Your task to perform on an android device: open app "LinkedIn" (install if not already installed), go to login, and select forgot password Image 0: 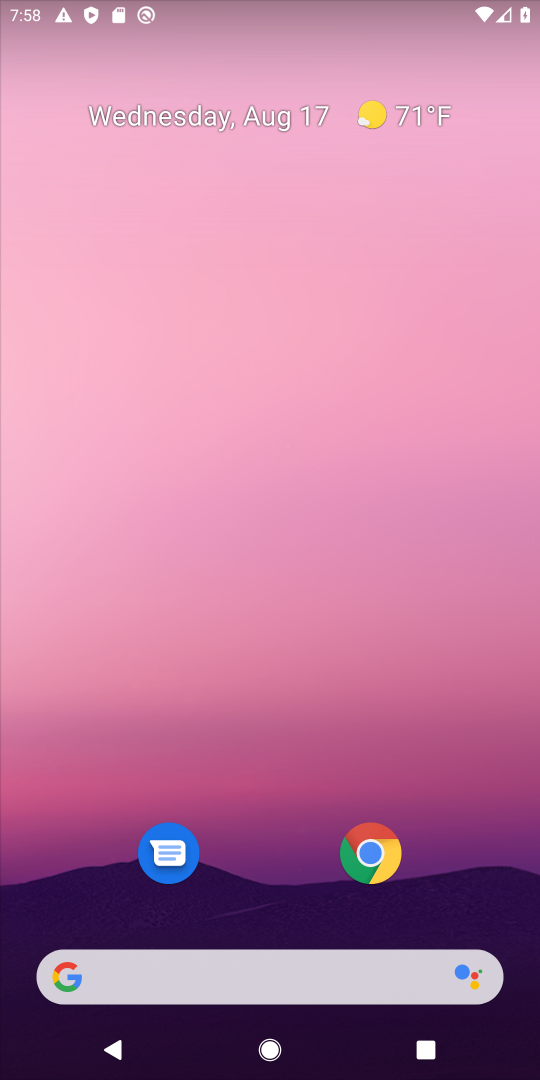
Step 0: drag from (303, 859) to (331, 259)
Your task to perform on an android device: open app "LinkedIn" (install if not already installed), go to login, and select forgot password Image 1: 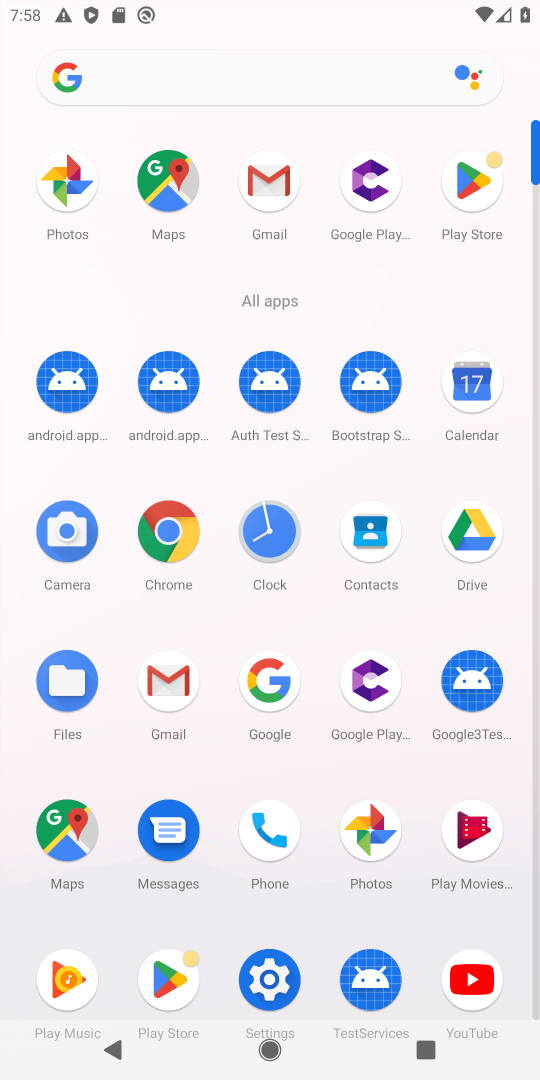
Step 1: click (489, 180)
Your task to perform on an android device: open app "LinkedIn" (install if not already installed), go to login, and select forgot password Image 2: 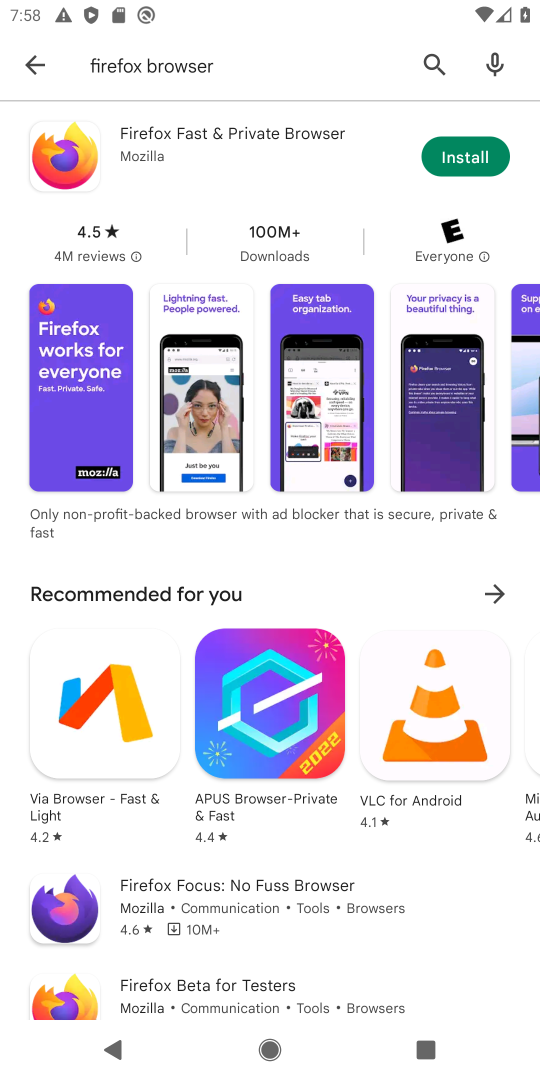
Step 2: click (439, 64)
Your task to perform on an android device: open app "LinkedIn" (install if not already installed), go to login, and select forgot password Image 3: 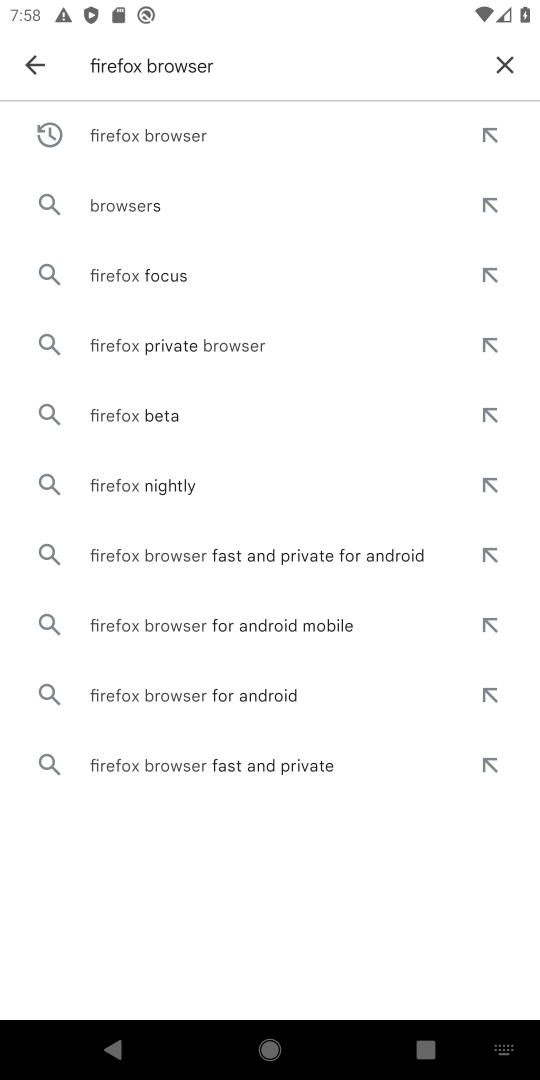
Step 3: click (500, 66)
Your task to perform on an android device: open app "LinkedIn" (install if not already installed), go to login, and select forgot password Image 4: 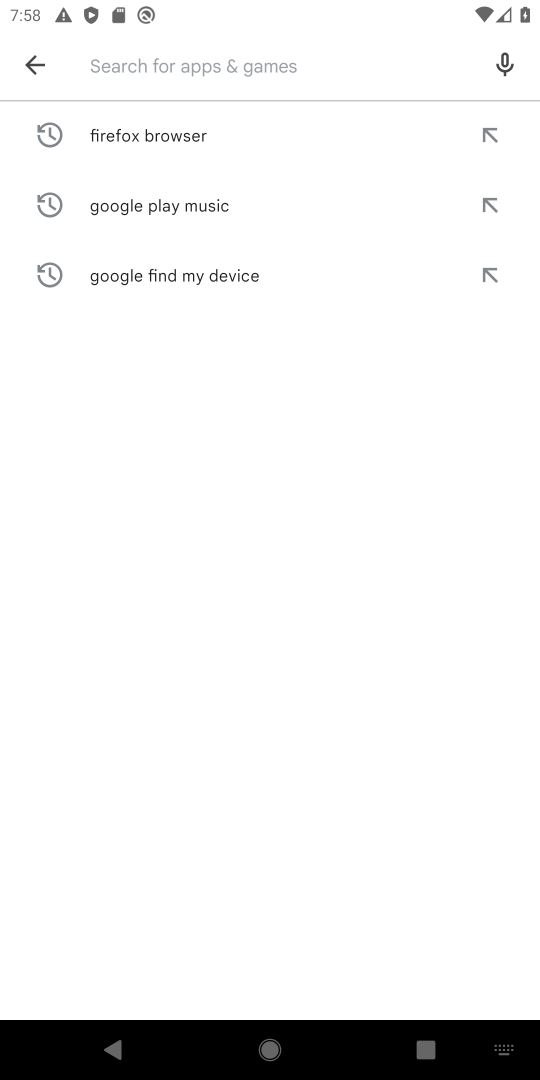
Step 4: type "LinkedIn"
Your task to perform on an android device: open app "LinkedIn" (install if not already installed), go to login, and select forgot password Image 5: 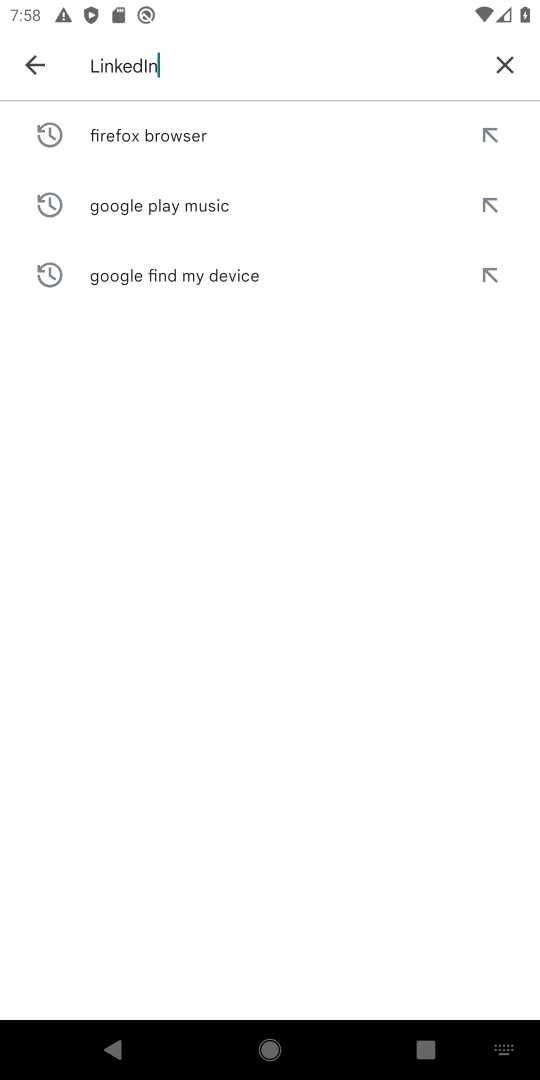
Step 5: type ""
Your task to perform on an android device: open app "LinkedIn" (install if not already installed), go to login, and select forgot password Image 6: 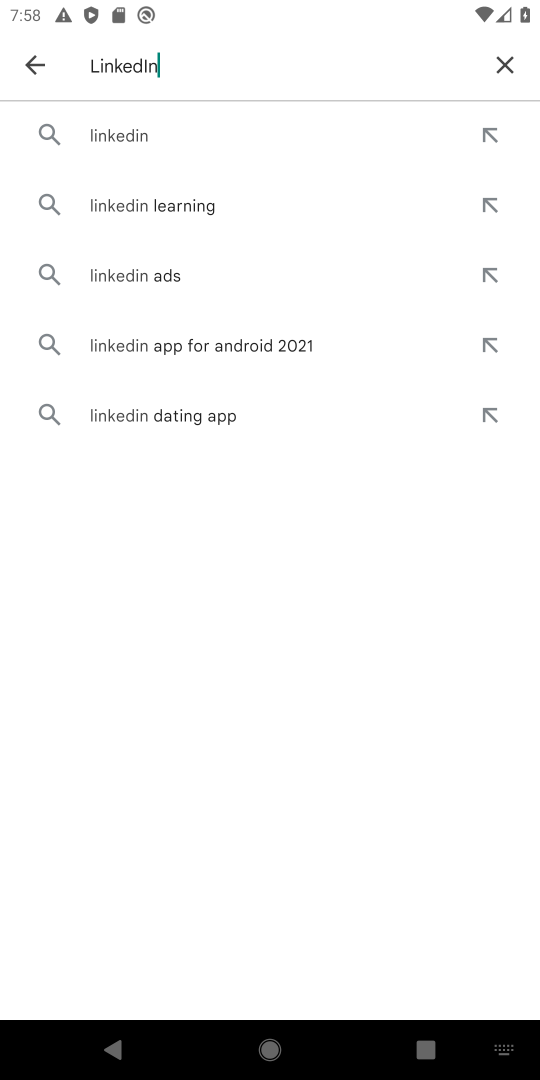
Step 6: click (301, 125)
Your task to perform on an android device: open app "LinkedIn" (install if not already installed), go to login, and select forgot password Image 7: 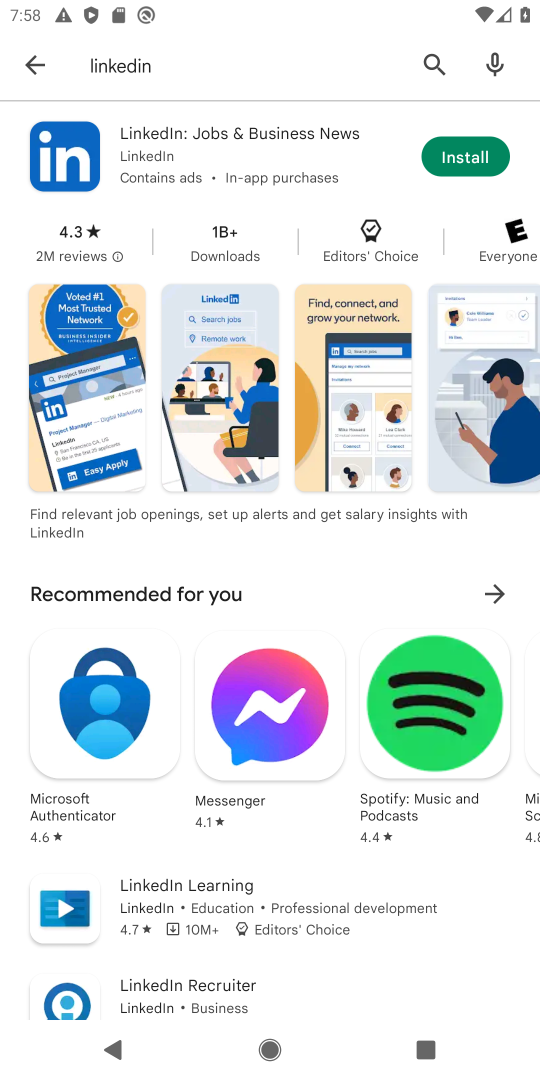
Step 7: click (463, 160)
Your task to perform on an android device: open app "LinkedIn" (install if not already installed), go to login, and select forgot password Image 8: 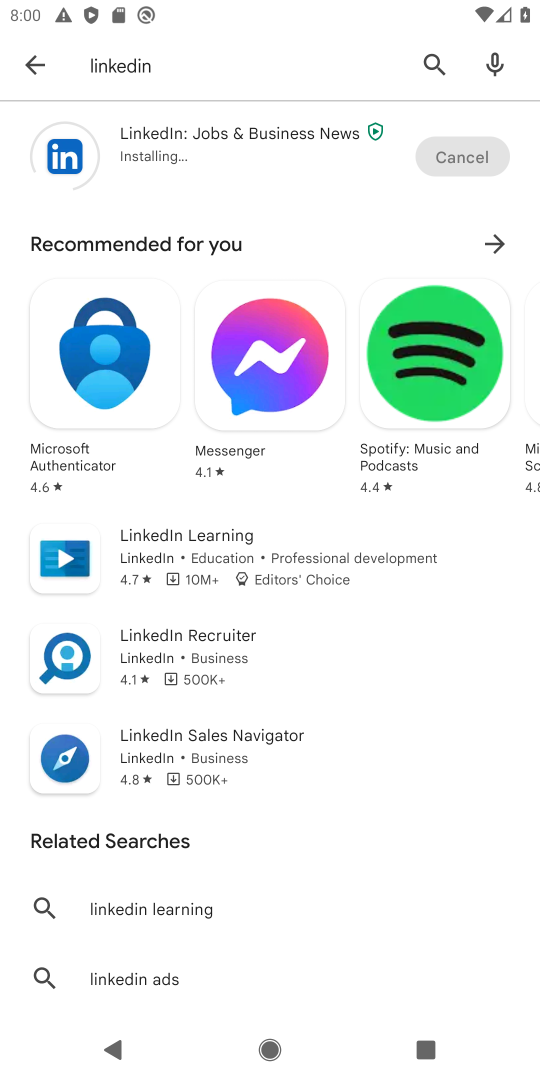
Step 8: click (237, 137)
Your task to perform on an android device: open app "LinkedIn" (install if not already installed), go to login, and select forgot password Image 9: 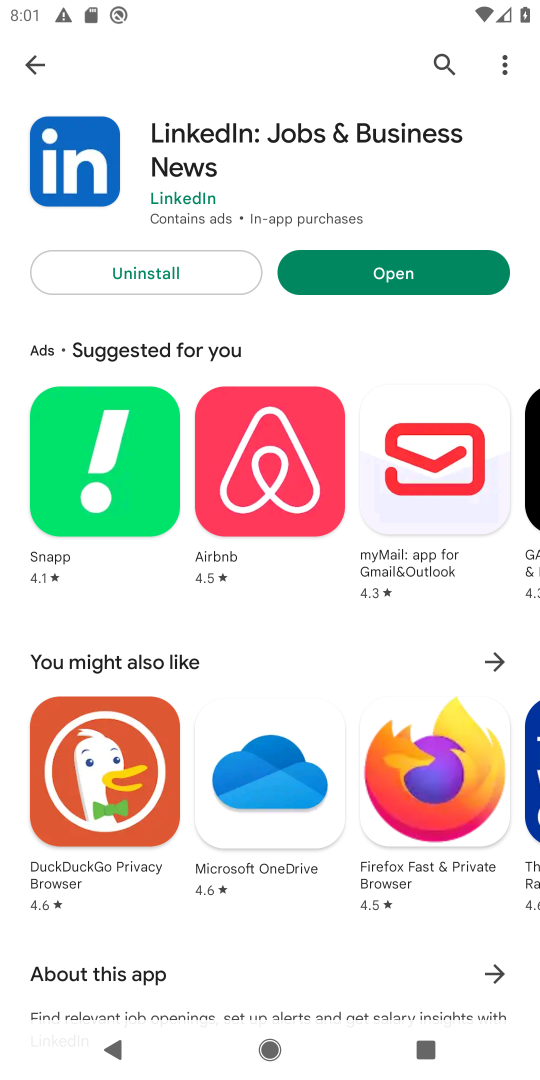
Step 9: click (396, 261)
Your task to perform on an android device: open app "LinkedIn" (install if not already installed), go to login, and select forgot password Image 10: 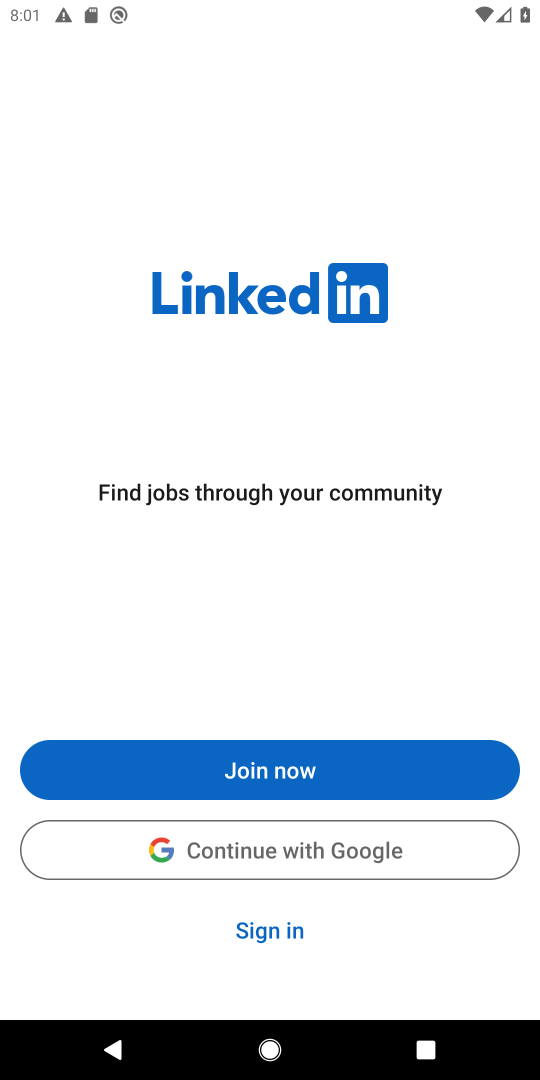
Step 10: click (279, 924)
Your task to perform on an android device: open app "LinkedIn" (install if not already installed), go to login, and select forgot password Image 11: 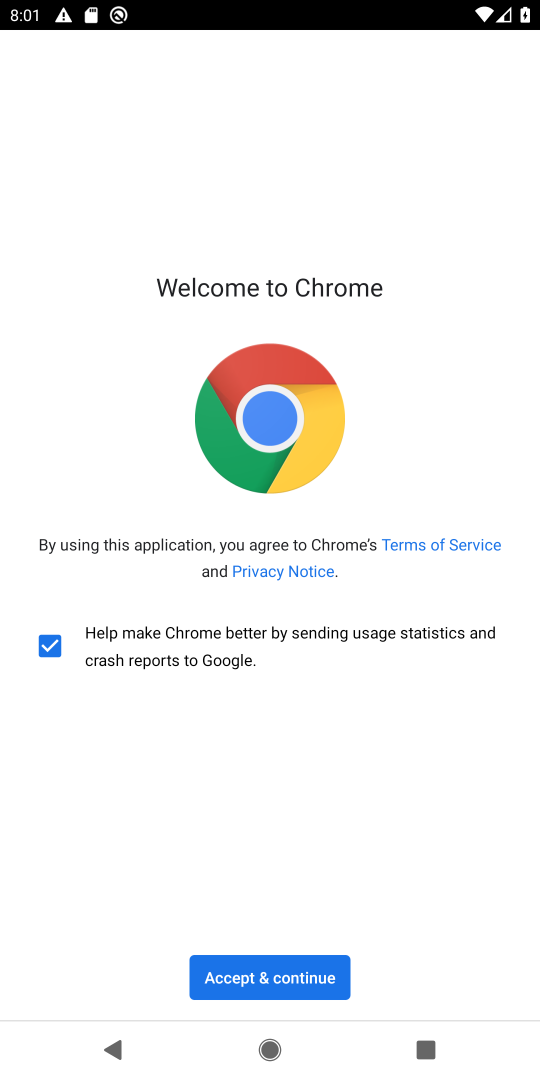
Step 11: click (323, 971)
Your task to perform on an android device: open app "LinkedIn" (install if not already installed), go to login, and select forgot password Image 12: 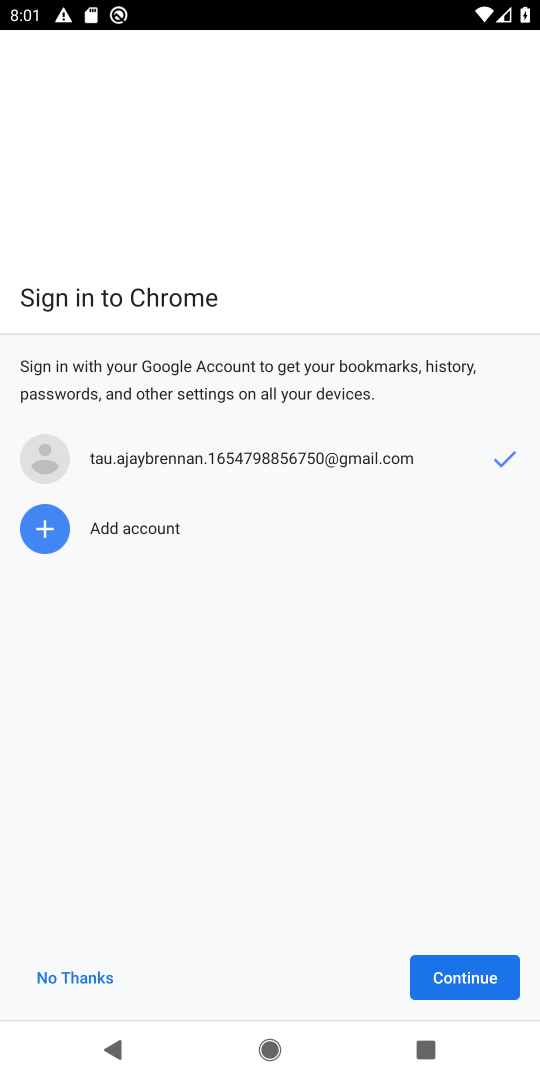
Step 12: task complete